Your task to perform on an android device: Open the web browser Image 0: 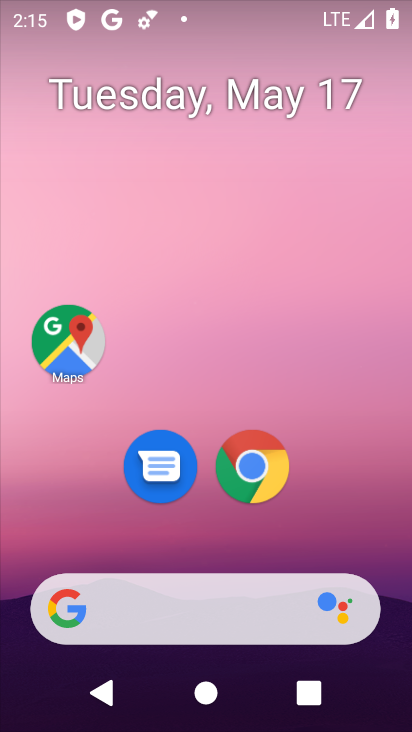
Step 0: click (267, 463)
Your task to perform on an android device: Open the web browser Image 1: 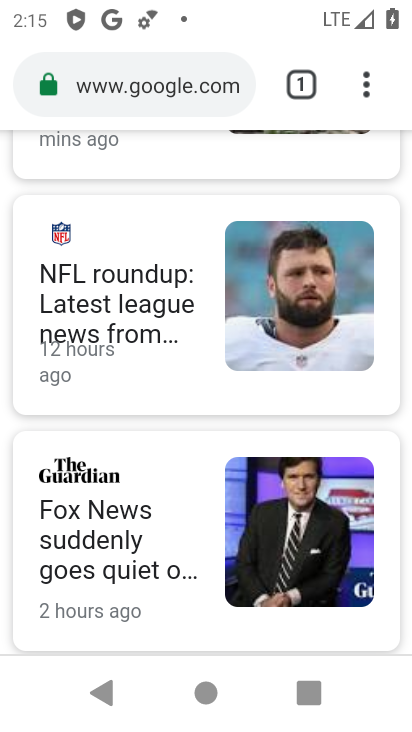
Step 1: task complete